Your task to perform on an android device: turn on the 12-hour format for clock Image 0: 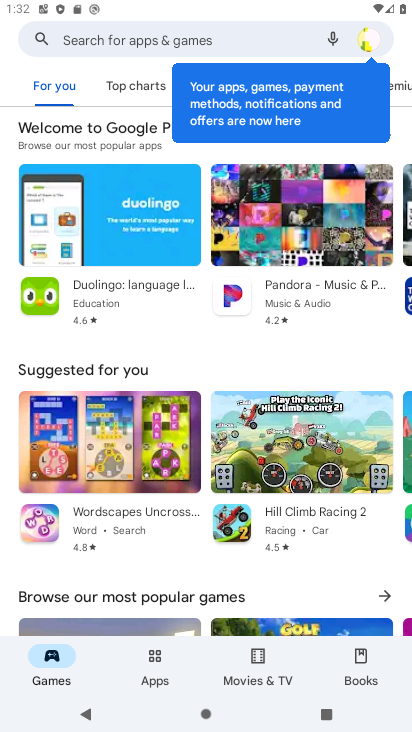
Step 0: press back button
Your task to perform on an android device: turn on the 12-hour format for clock Image 1: 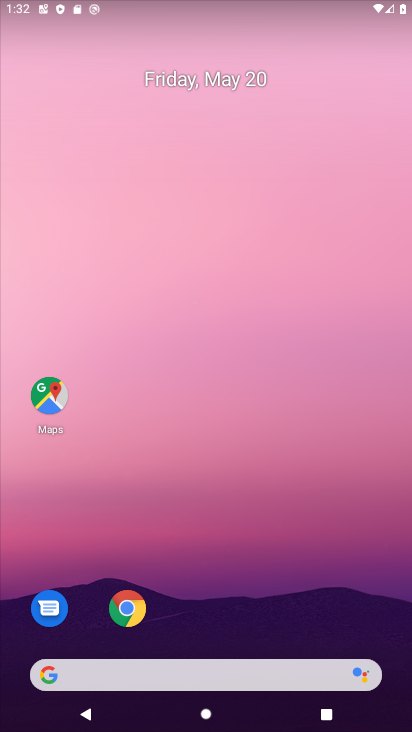
Step 1: drag from (208, 557) to (307, 74)
Your task to perform on an android device: turn on the 12-hour format for clock Image 2: 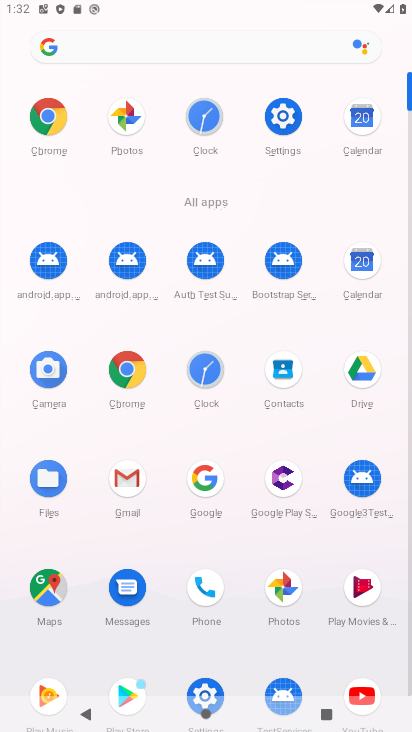
Step 2: click (203, 374)
Your task to perform on an android device: turn on the 12-hour format for clock Image 3: 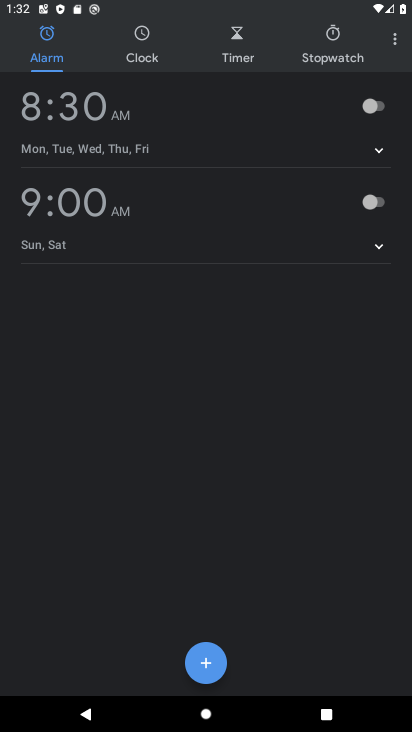
Step 3: click (399, 32)
Your task to perform on an android device: turn on the 12-hour format for clock Image 4: 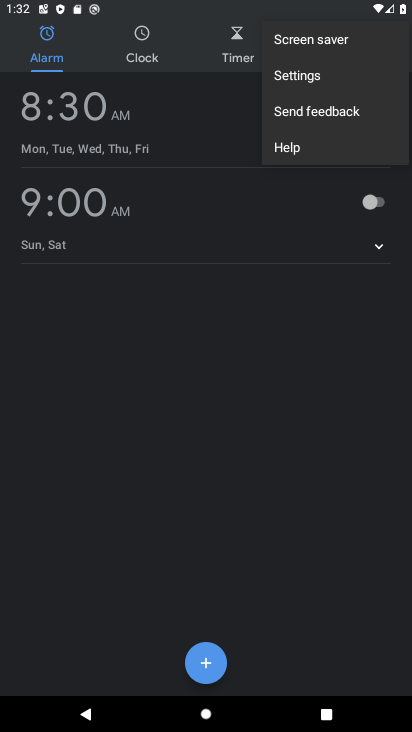
Step 4: click (325, 85)
Your task to perform on an android device: turn on the 12-hour format for clock Image 5: 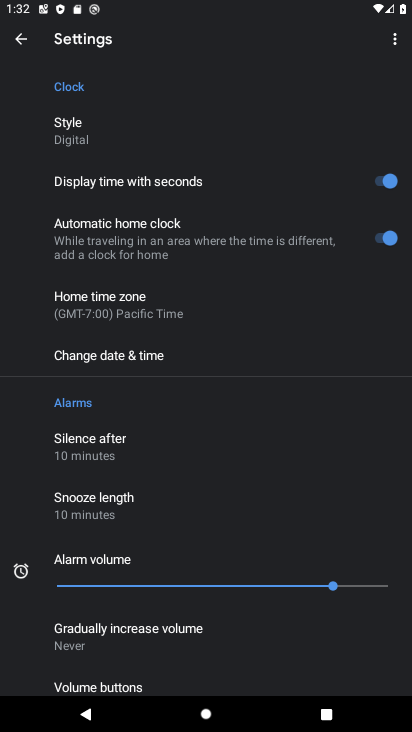
Step 5: drag from (226, 649) to (341, 11)
Your task to perform on an android device: turn on the 12-hour format for clock Image 6: 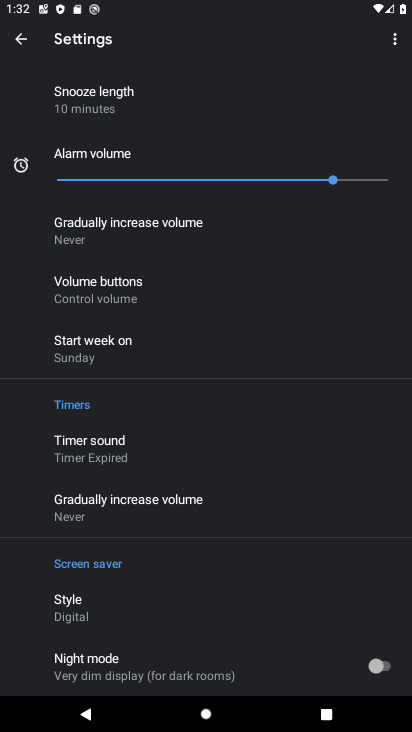
Step 6: drag from (162, 569) to (240, 58)
Your task to perform on an android device: turn on the 12-hour format for clock Image 7: 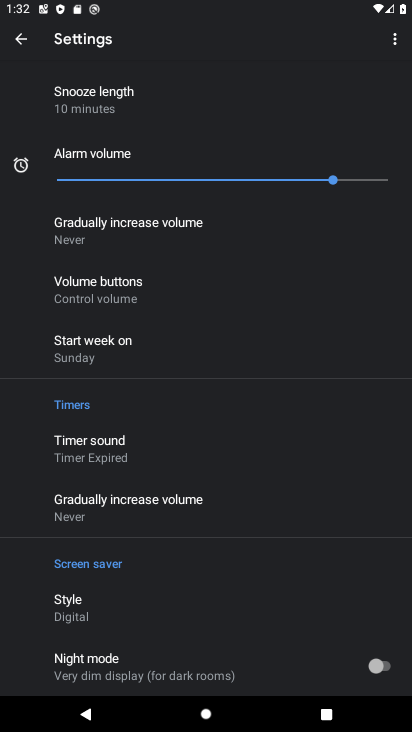
Step 7: drag from (165, 167) to (110, 719)
Your task to perform on an android device: turn on the 12-hour format for clock Image 8: 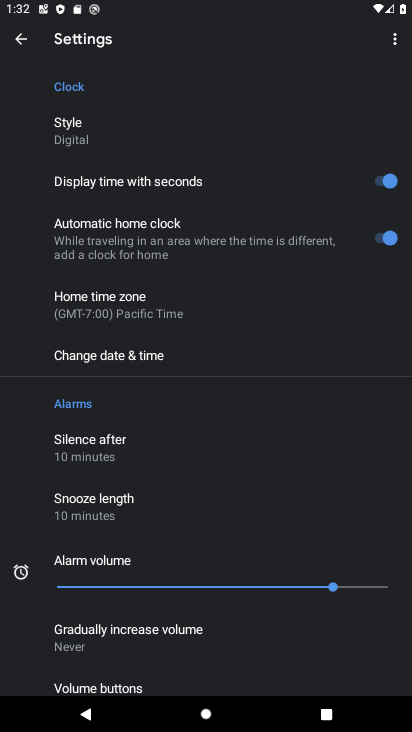
Step 8: click (80, 352)
Your task to perform on an android device: turn on the 12-hour format for clock Image 9: 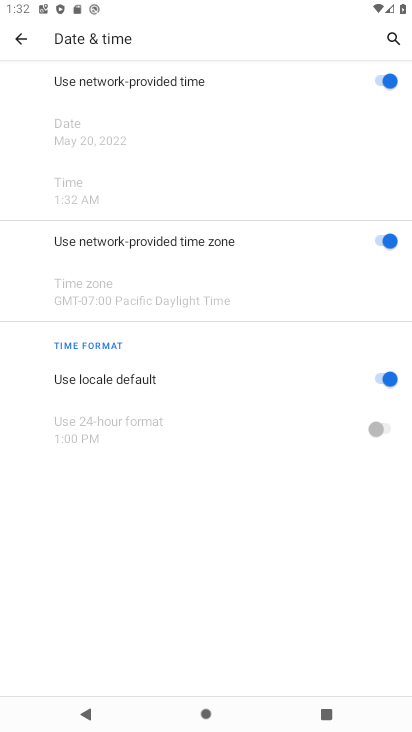
Step 9: task complete